Your task to perform on an android device: What's the US dollar exchange rate against the Brazilian Real? Image 0: 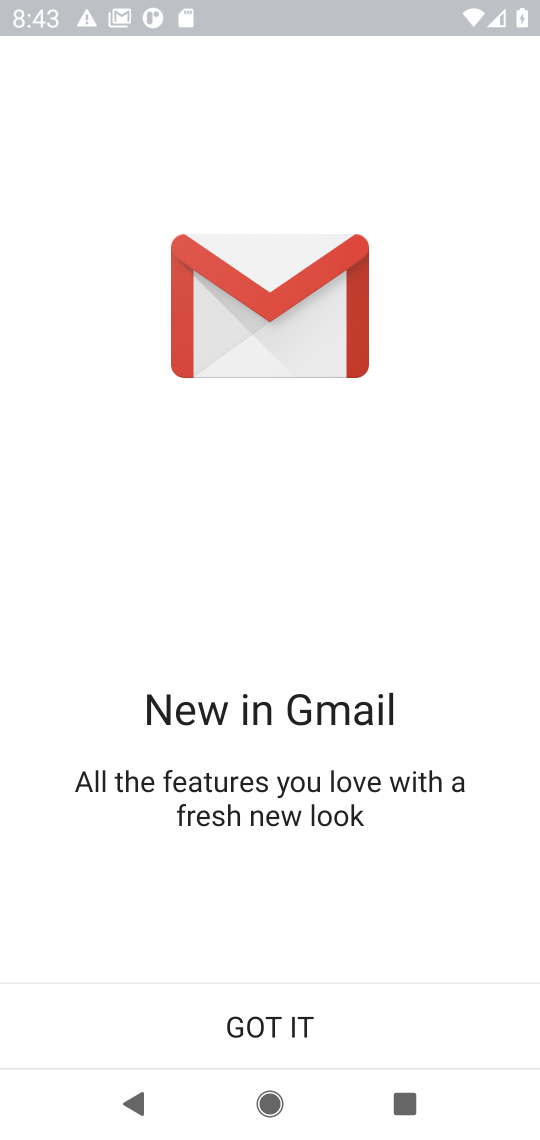
Step 0: press home button
Your task to perform on an android device: What's the US dollar exchange rate against the Brazilian Real? Image 1: 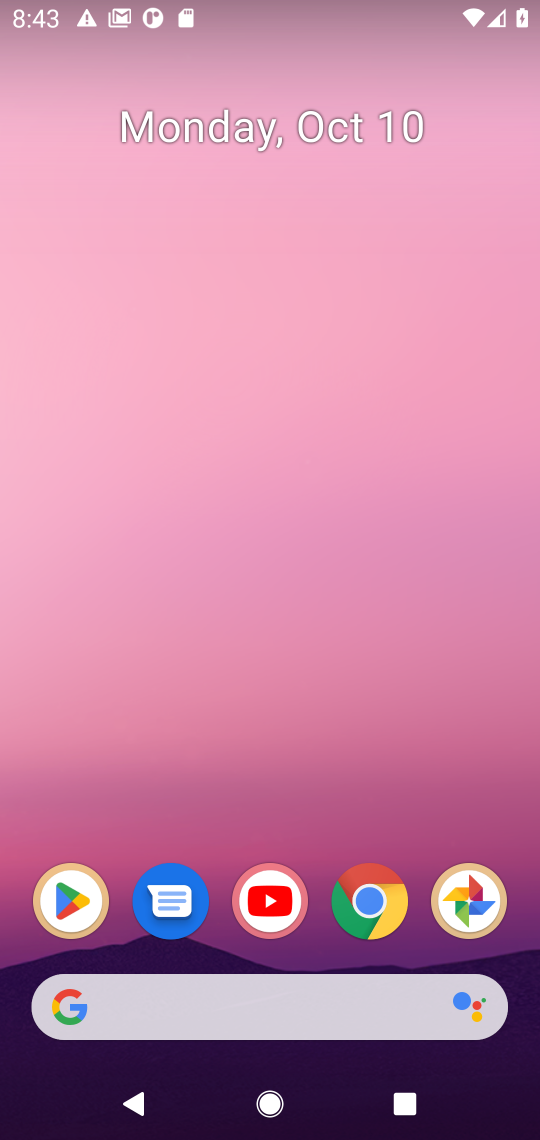
Step 1: click (193, 1004)
Your task to perform on an android device: What's the US dollar exchange rate against the Brazilian Real? Image 2: 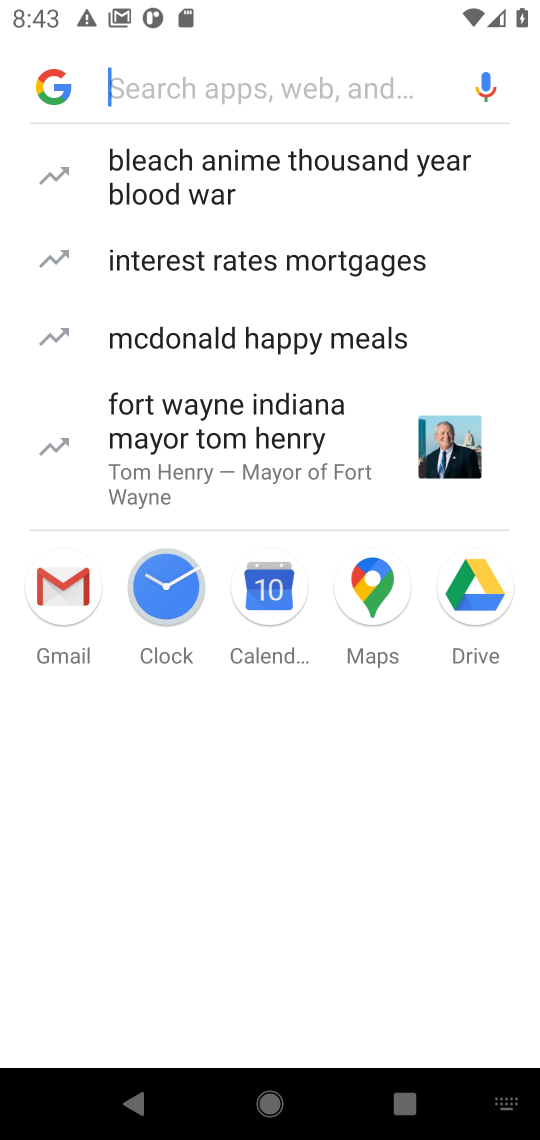
Step 2: type "US dollar exchange rate against the Brazilian Real"
Your task to perform on an android device: What's the US dollar exchange rate against the Brazilian Real? Image 3: 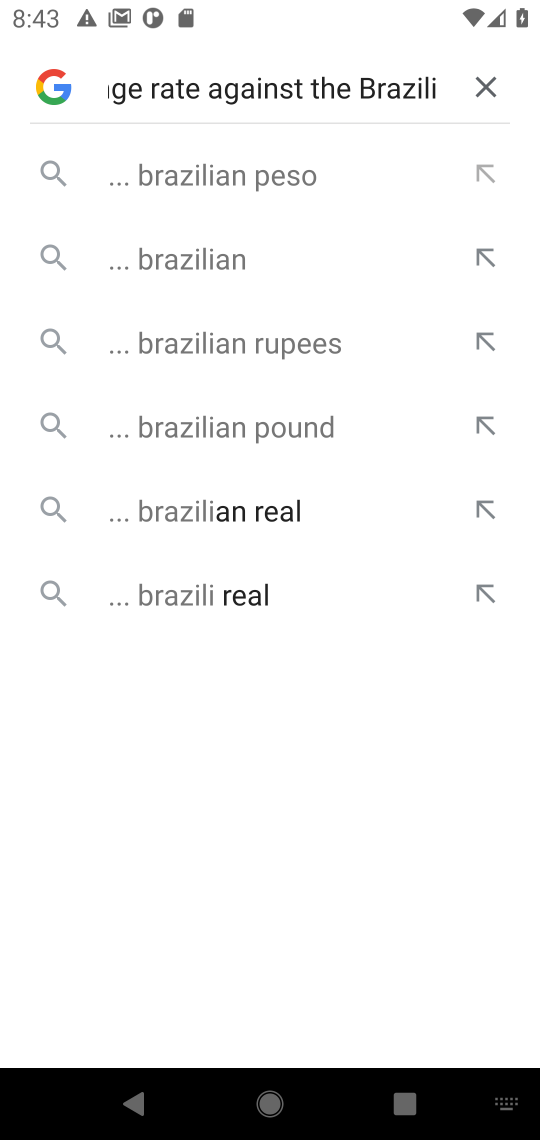
Step 3: press enter
Your task to perform on an android device: What's the US dollar exchange rate against the Brazilian Real? Image 4: 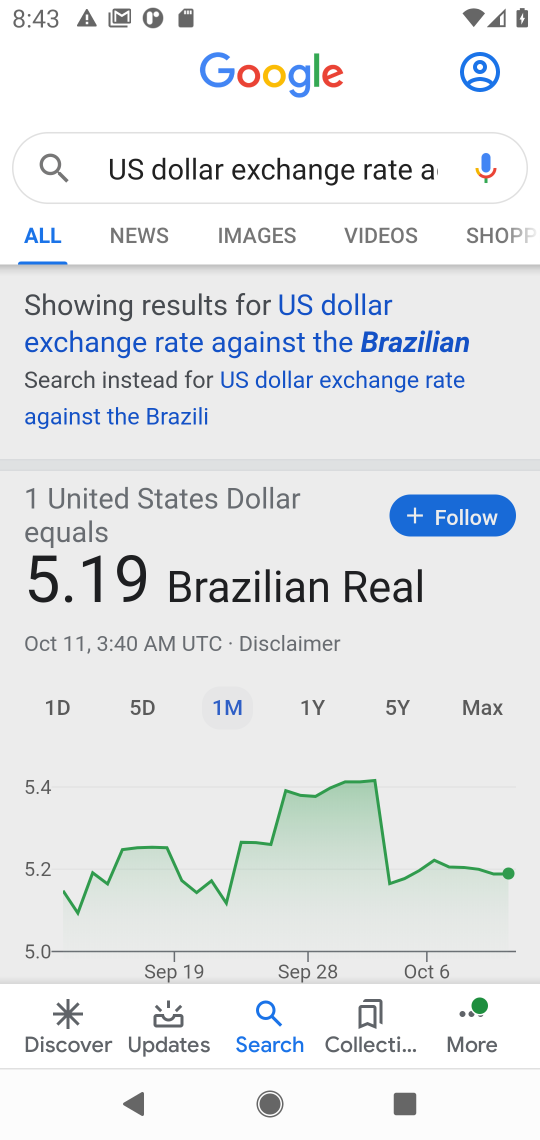
Step 4: task complete